Your task to perform on an android device: Search for seafood restaurants on Google Maps Image 0: 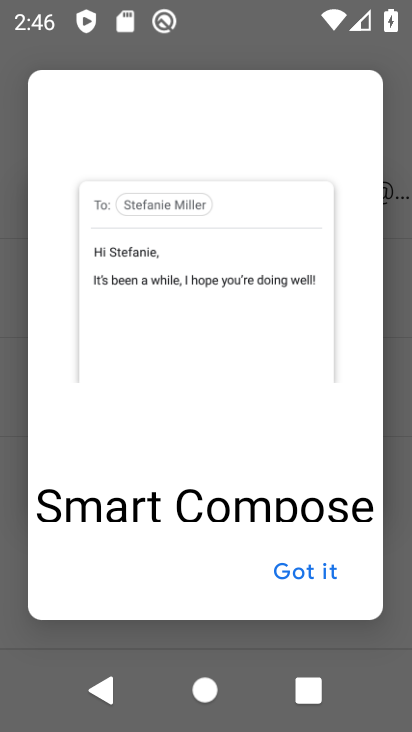
Step 0: press home button
Your task to perform on an android device: Search for seafood restaurants on Google Maps Image 1: 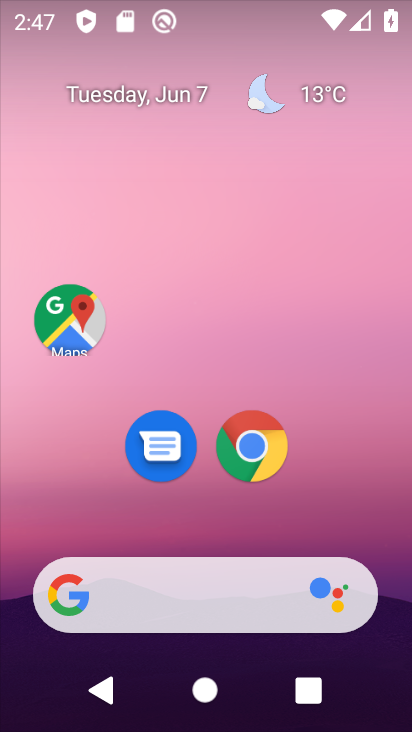
Step 1: drag from (223, 535) to (291, 76)
Your task to perform on an android device: Search for seafood restaurants on Google Maps Image 2: 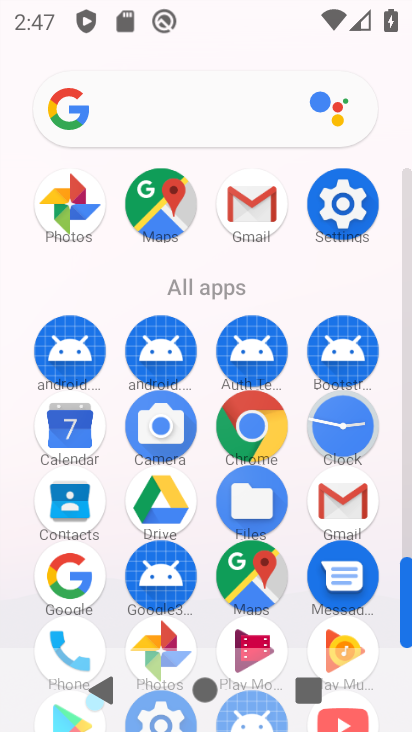
Step 2: click (250, 575)
Your task to perform on an android device: Search for seafood restaurants on Google Maps Image 3: 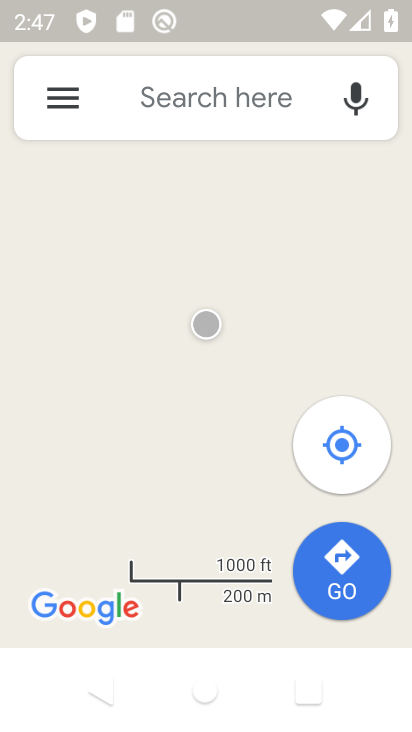
Step 3: click (161, 99)
Your task to perform on an android device: Search for seafood restaurants on Google Maps Image 4: 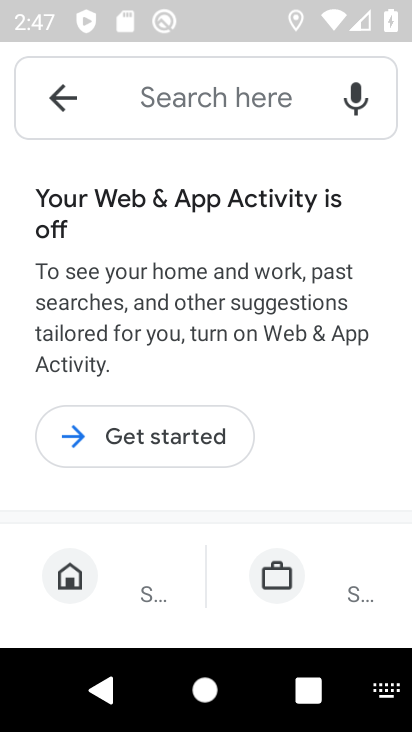
Step 4: type "seafood restaurants"
Your task to perform on an android device: Search for seafood restaurants on Google Maps Image 5: 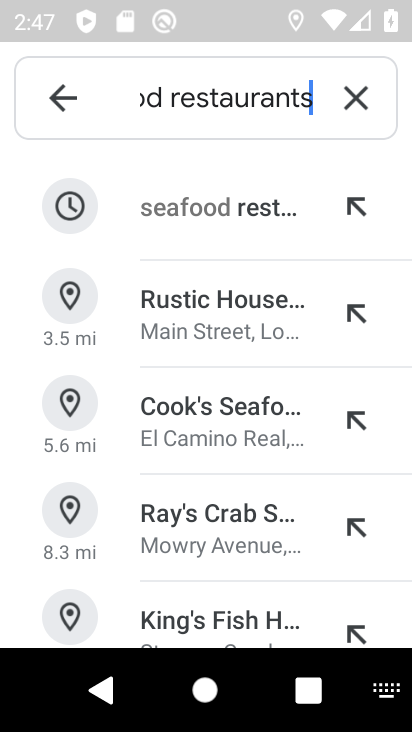
Step 5: click (215, 212)
Your task to perform on an android device: Search for seafood restaurants on Google Maps Image 6: 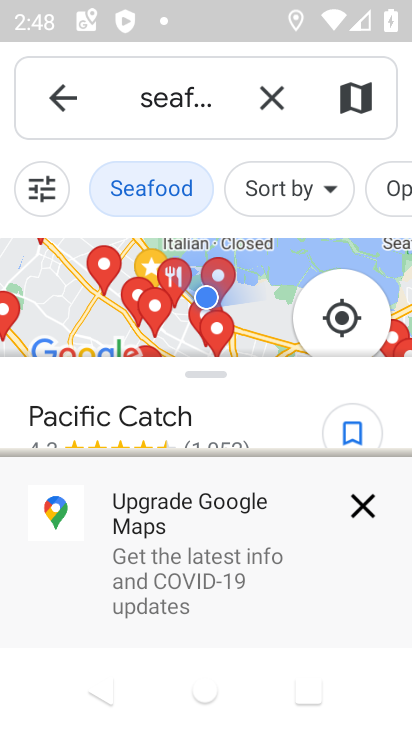
Step 6: task complete